Your task to perform on an android device: read, delete, or share a saved page in the chrome app Image 0: 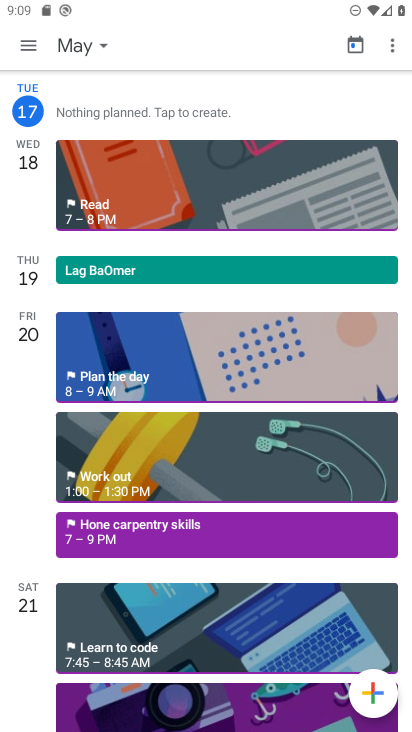
Step 0: press home button
Your task to perform on an android device: read, delete, or share a saved page in the chrome app Image 1: 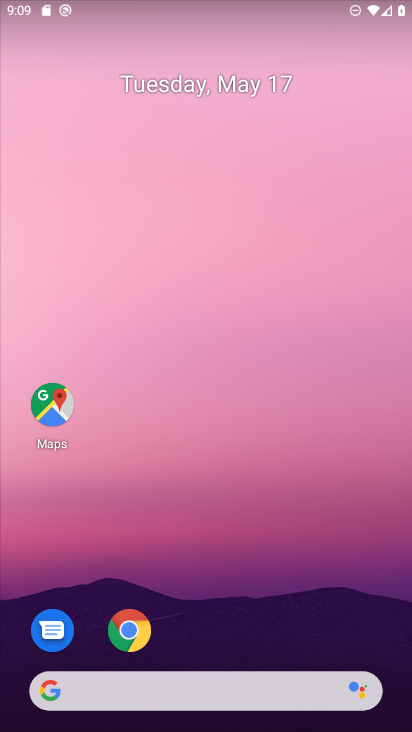
Step 1: drag from (352, 631) to (347, 133)
Your task to perform on an android device: read, delete, or share a saved page in the chrome app Image 2: 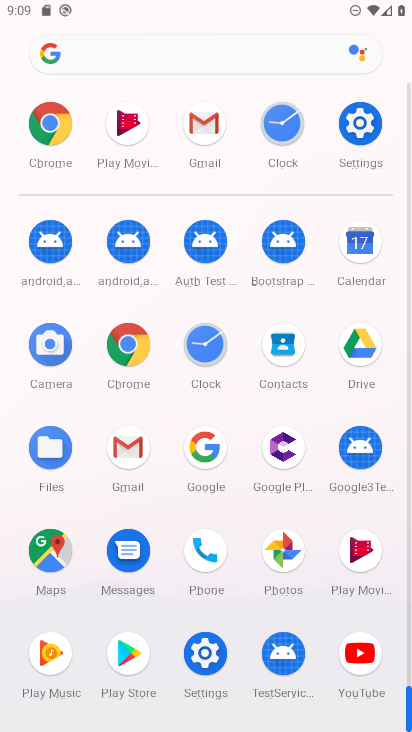
Step 2: click (123, 365)
Your task to perform on an android device: read, delete, or share a saved page in the chrome app Image 3: 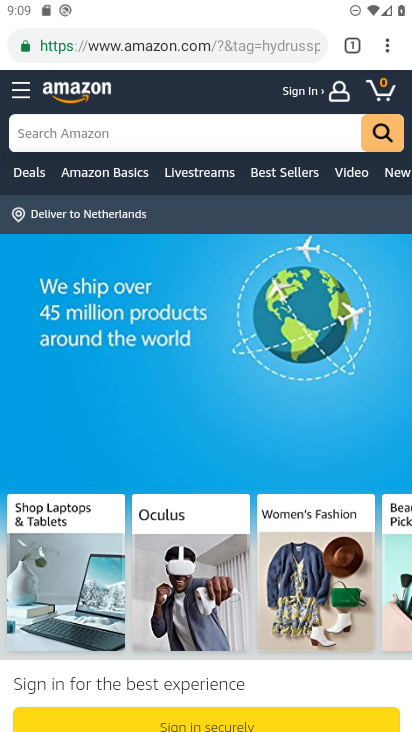
Step 3: click (388, 46)
Your task to perform on an android device: read, delete, or share a saved page in the chrome app Image 4: 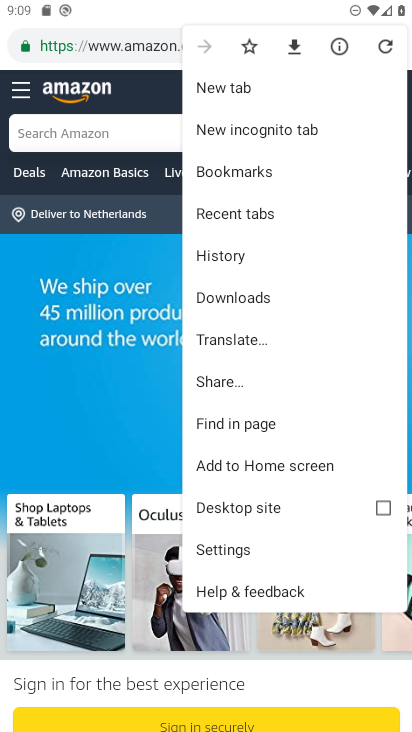
Step 4: click (263, 299)
Your task to perform on an android device: read, delete, or share a saved page in the chrome app Image 5: 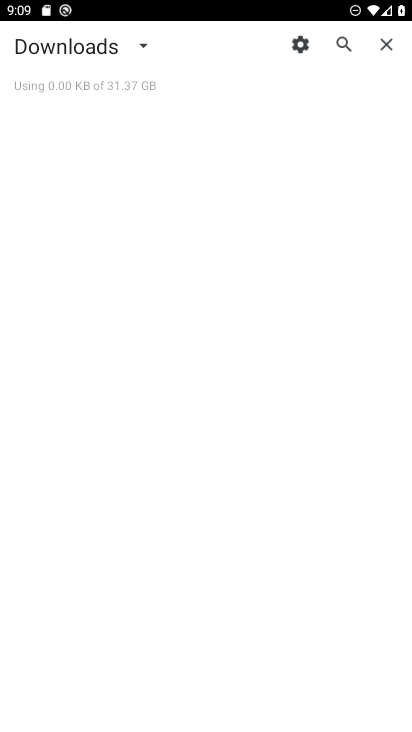
Step 5: click (137, 48)
Your task to perform on an android device: read, delete, or share a saved page in the chrome app Image 6: 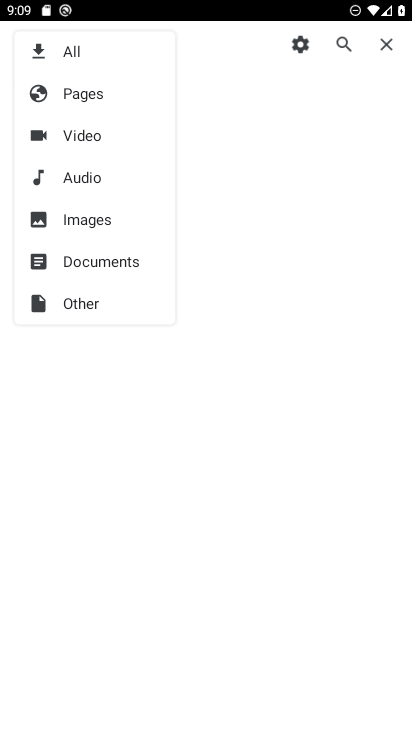
Step 6: click (99, 93)
Your task to perform on an android device: read, delete, or share a saved page in the chrome app Image 7: 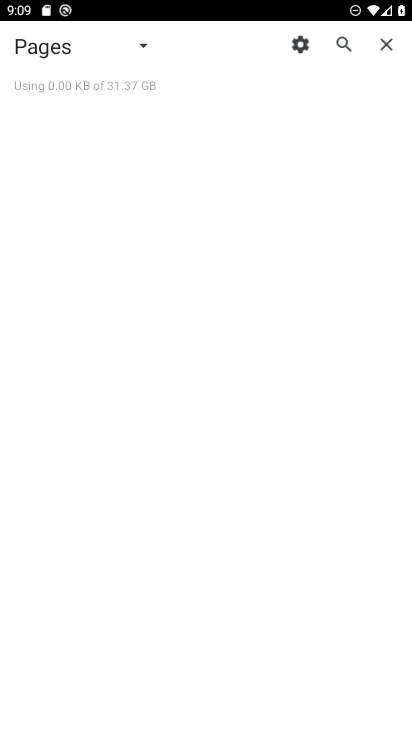
Step 7: task complete